Your task to perform on an android device: open app "Facebook" (install if not already installed) and go to login screen Image 0: 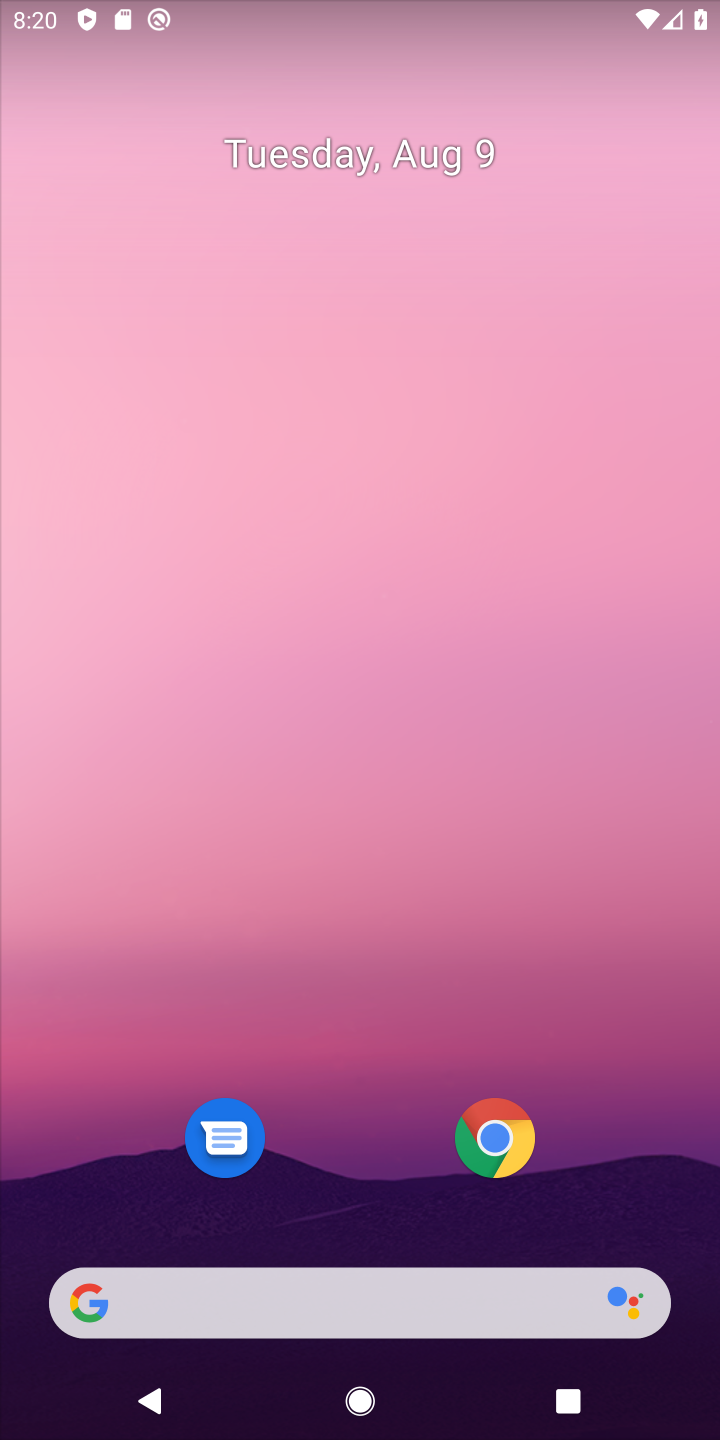
Step 0: drag from (371, 1128) to (455, 232)
Your task to perform on an android device: open app "Facebook" (install if not already installed) and go to login screen Image 1: 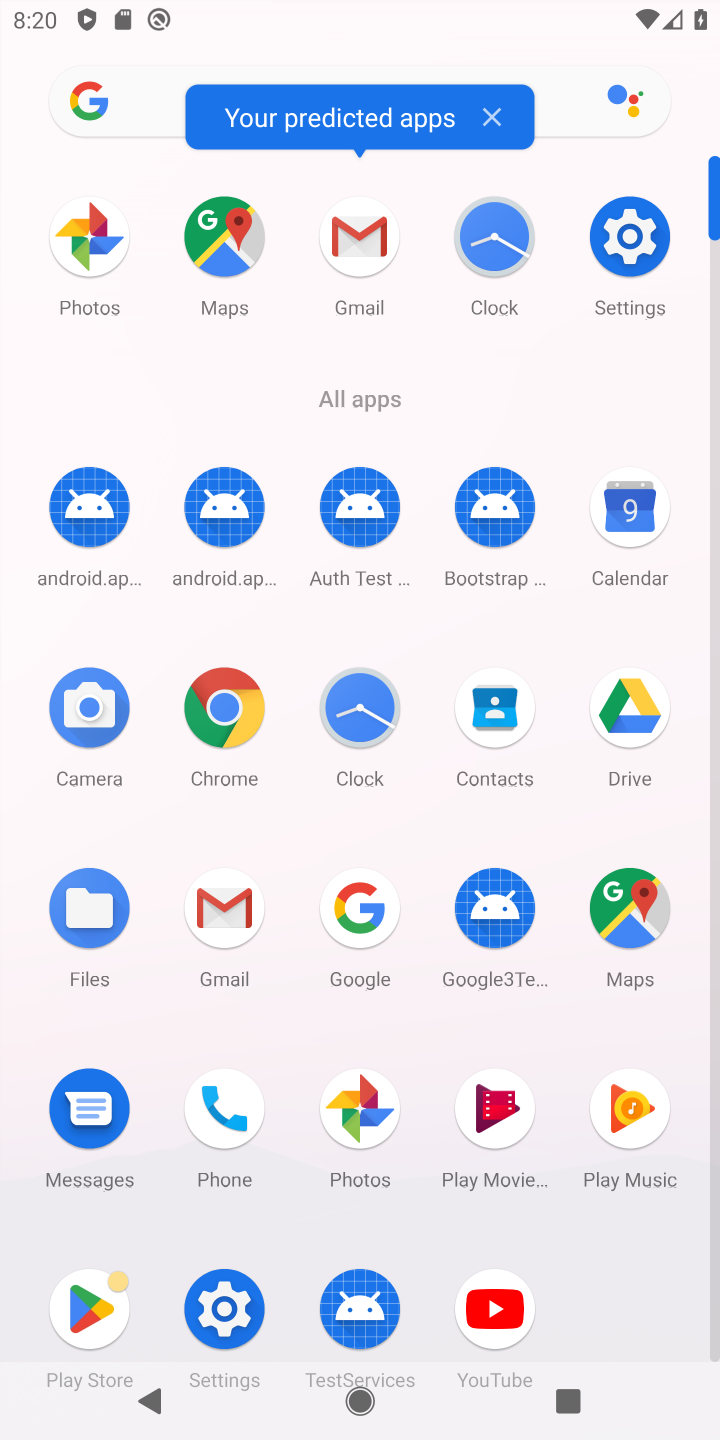
Step 1: click (110, 1294)
Your task to perform on an android device: open app "Facebook" (install if not already installed) and go to login screen Image 2: 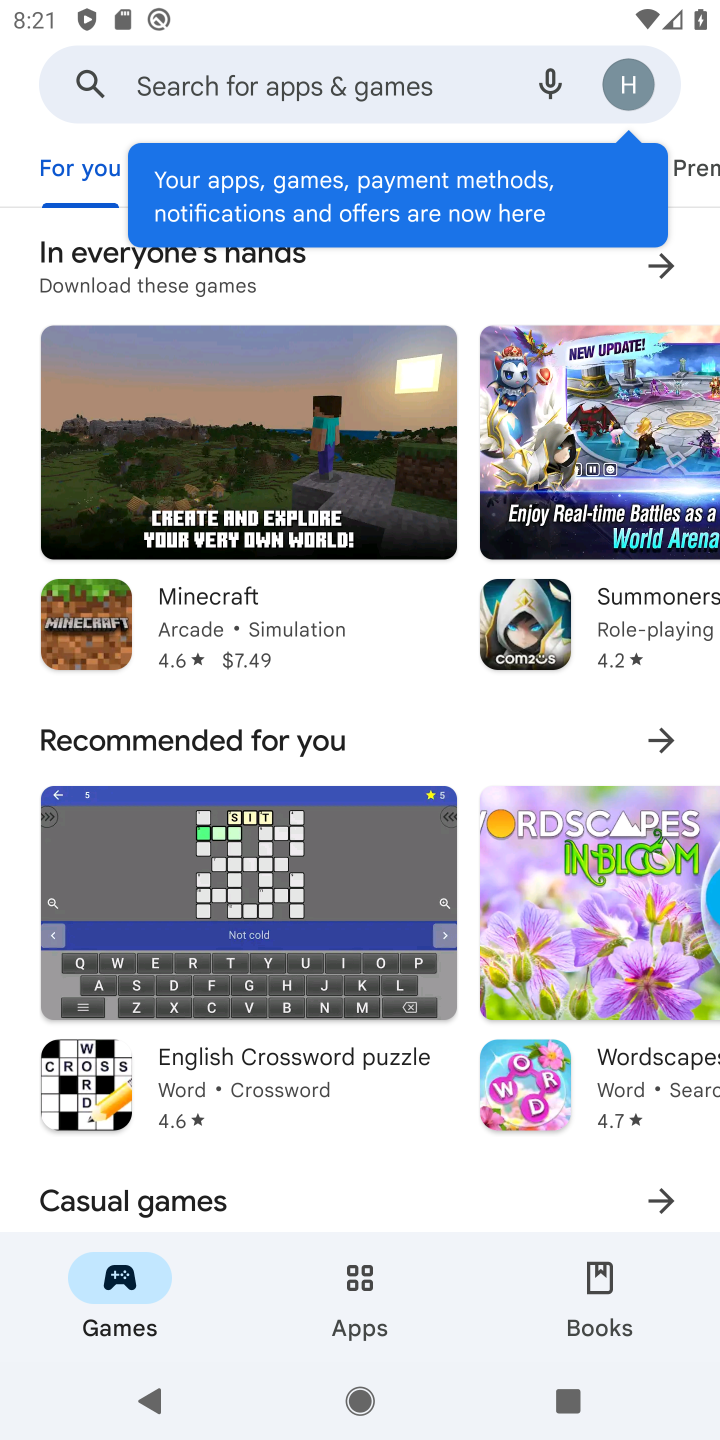
Step 2: click (336, 64)
Your task to perform on an android device: open app "Facebook" (install if not already installed) and go to login screen Image 3: 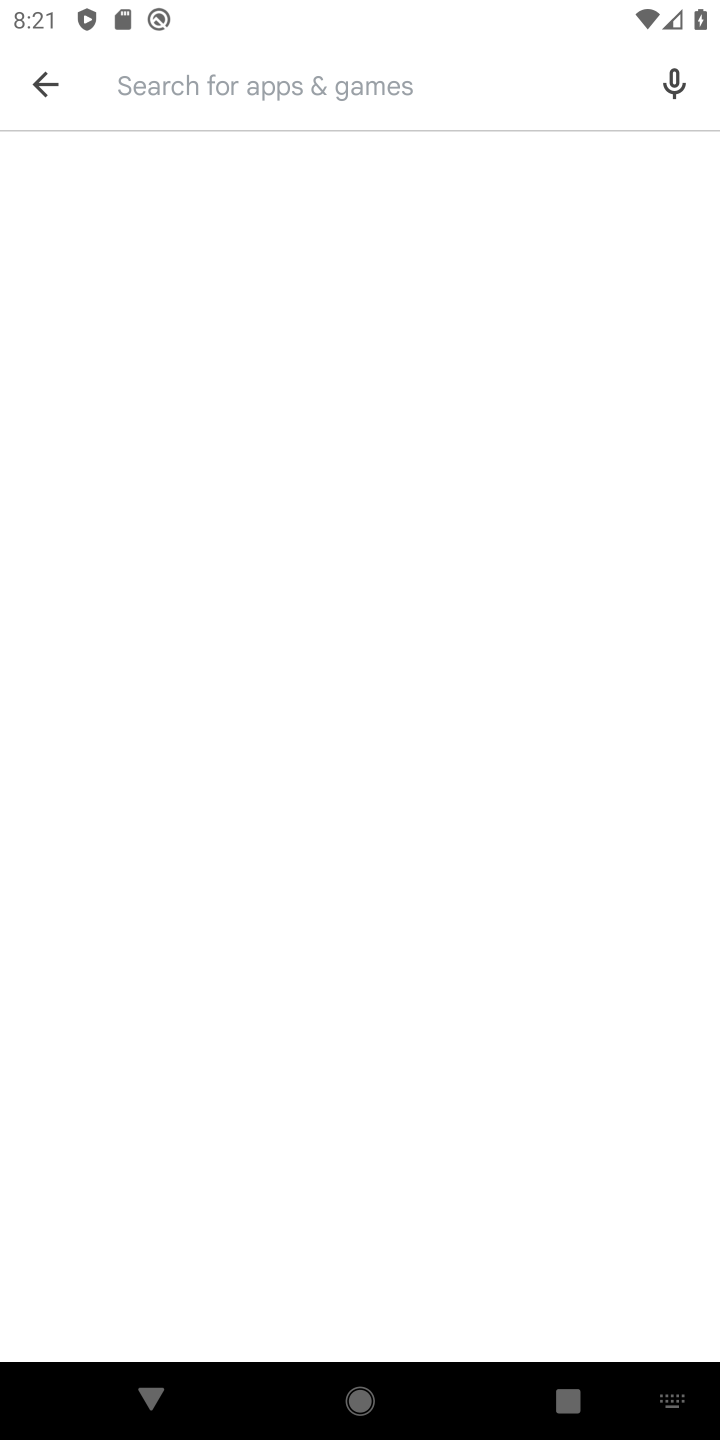
Step 3: type "Facebook"
Your task to perform on an android device: open app "Facebook" (install if not already installed) and go to login screen Image 4: 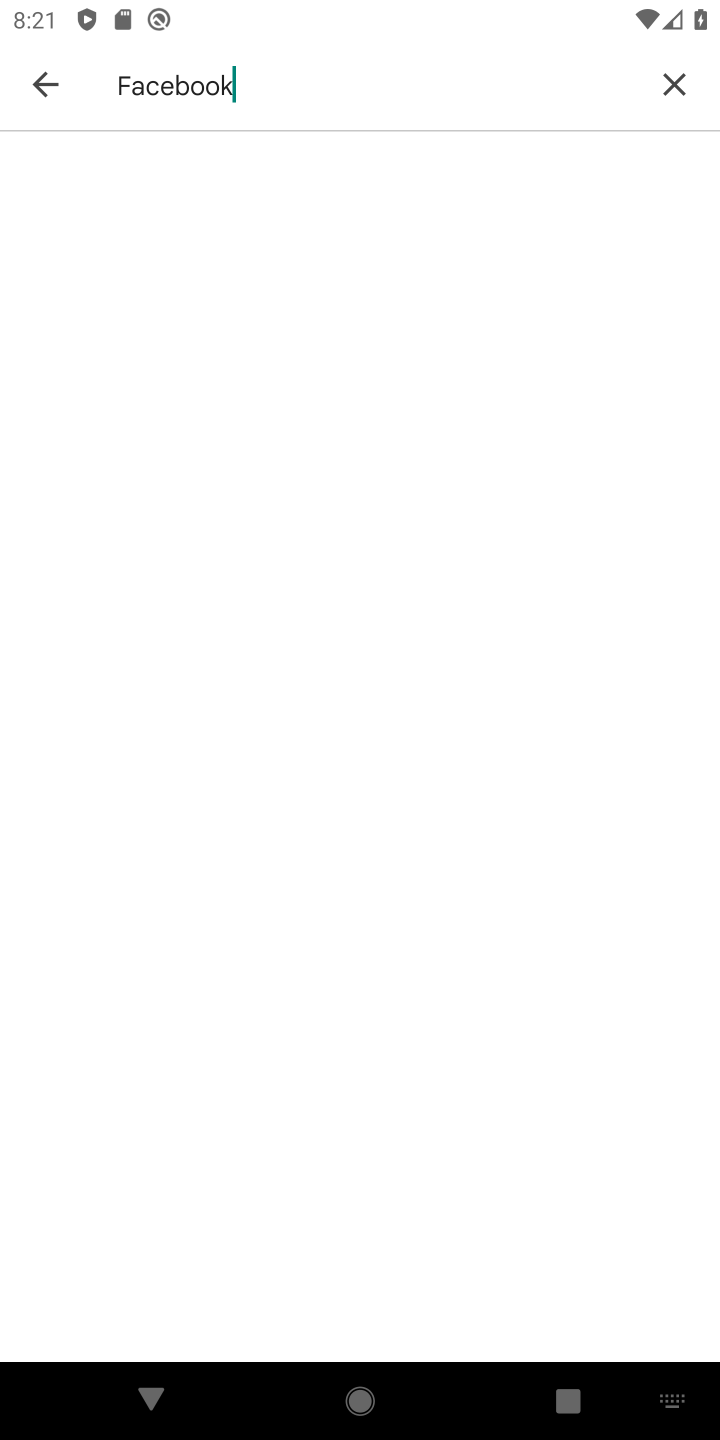
Step 4: type ""
Your task to perform on an android device: open app "Facebook" (install if not already installed) and go to login screen Image 5: 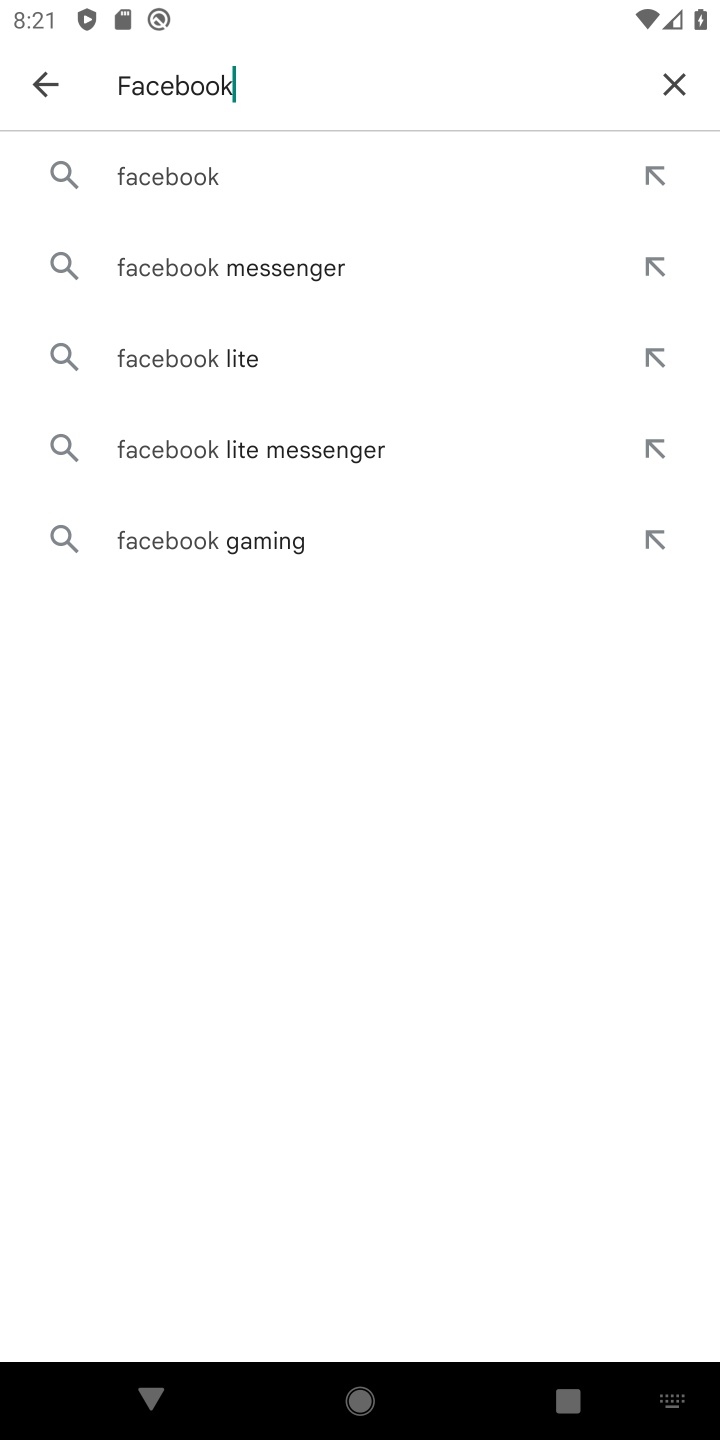
Step 5: click (184, 165)
Your task to perform on an android device: open app "Facebook" (install if not already installed) and go to login screen Image 6: 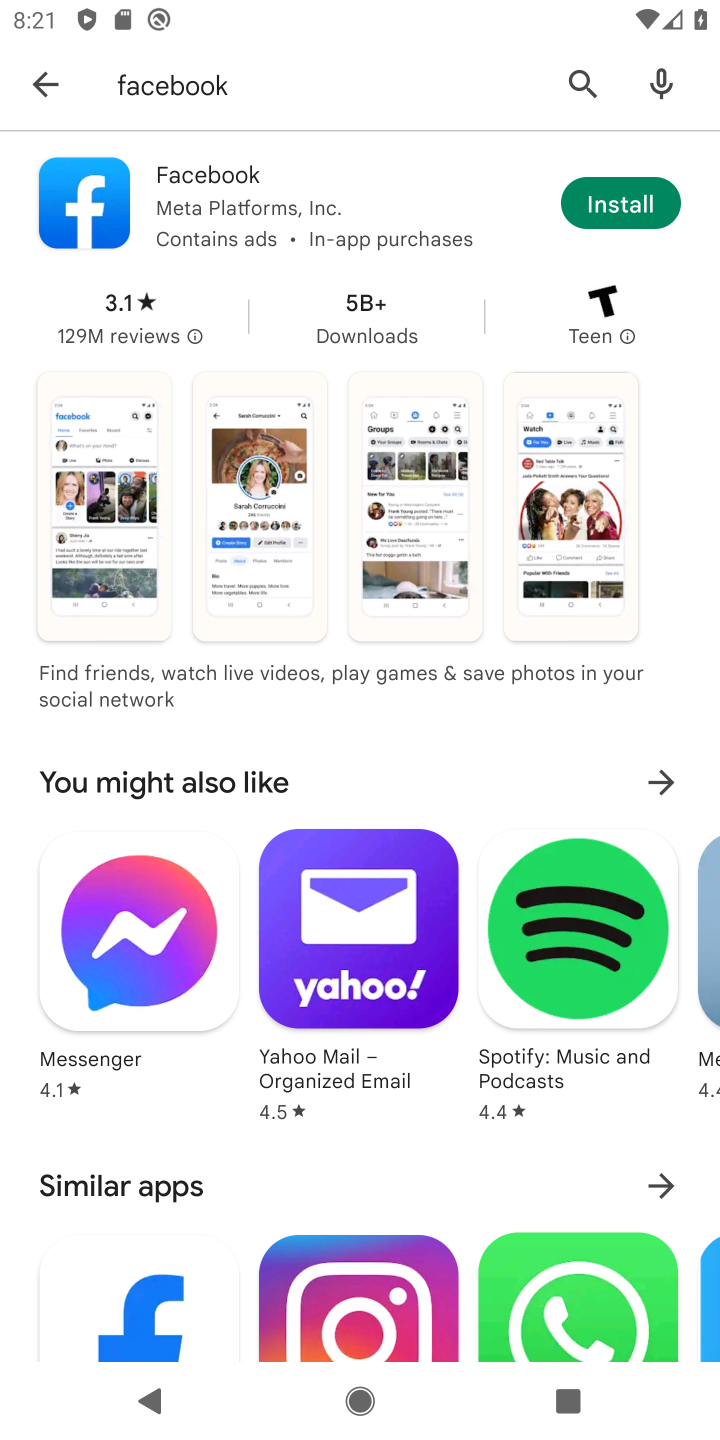
Step 6: click (628, 211)
Your task to perform on an android device: open app "Facebook" (install if not already installed) and go to login screen Image 7: 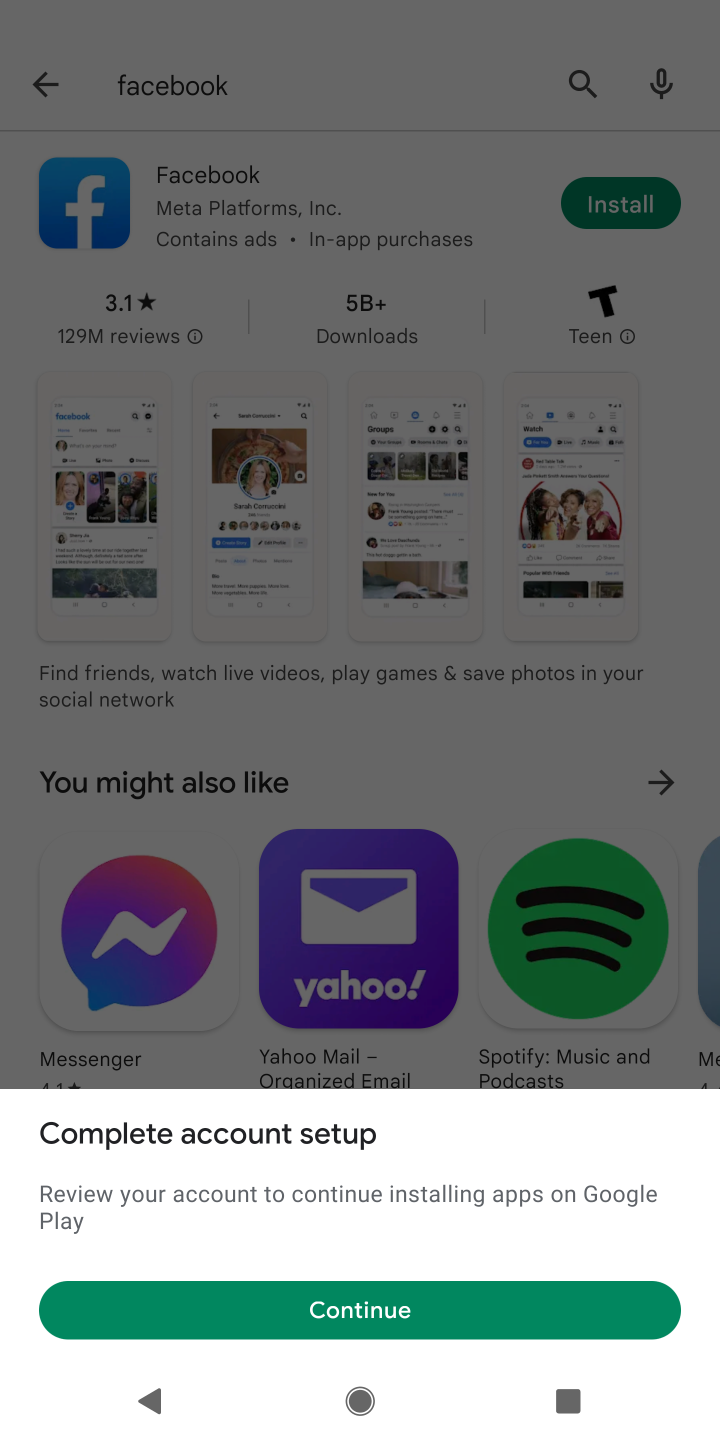
Step 7: click (355, 1306)
Your task to perform on an android device: open app "Facebook" (install if not already installed) and go to login screen Image 8: 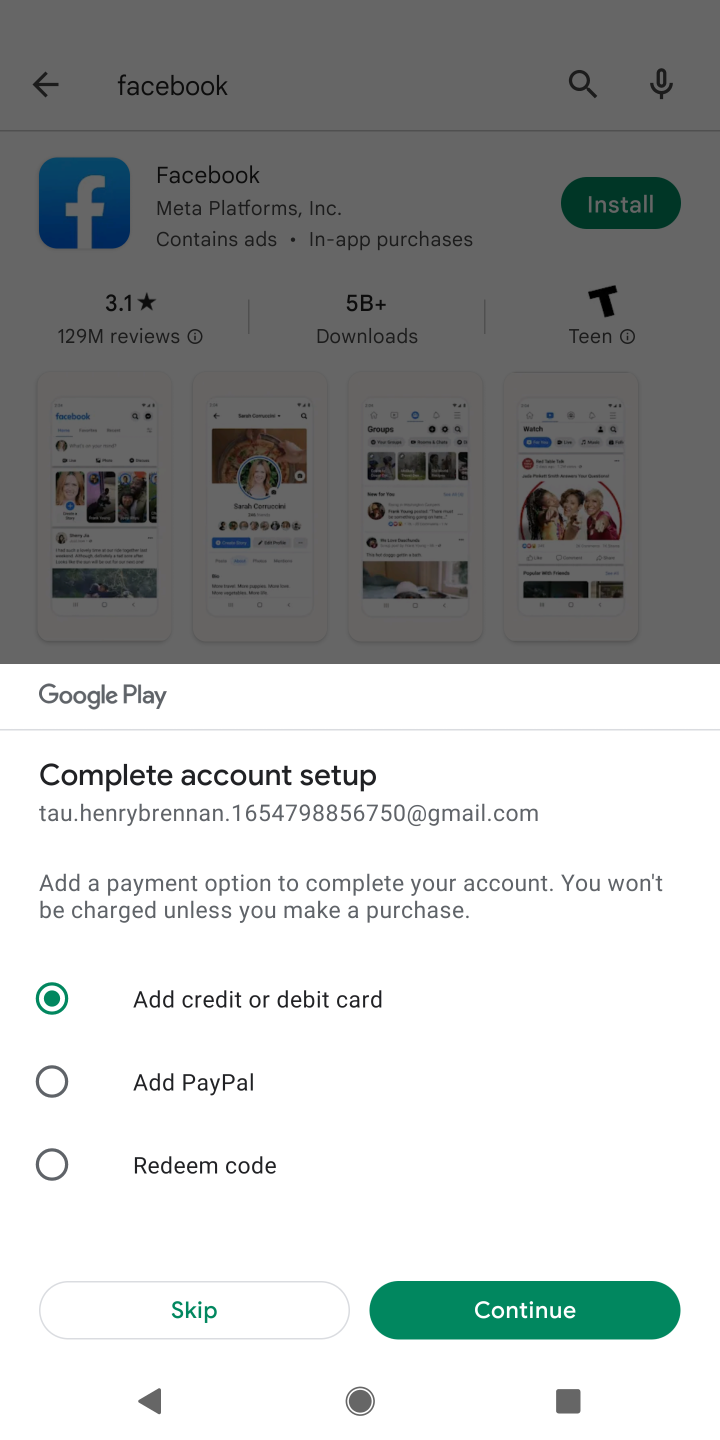
Step 8: click (148, 1320)
Your task to perform on an android device: open app "Facebook" (install if not already installed) and go to login screen Image 9: 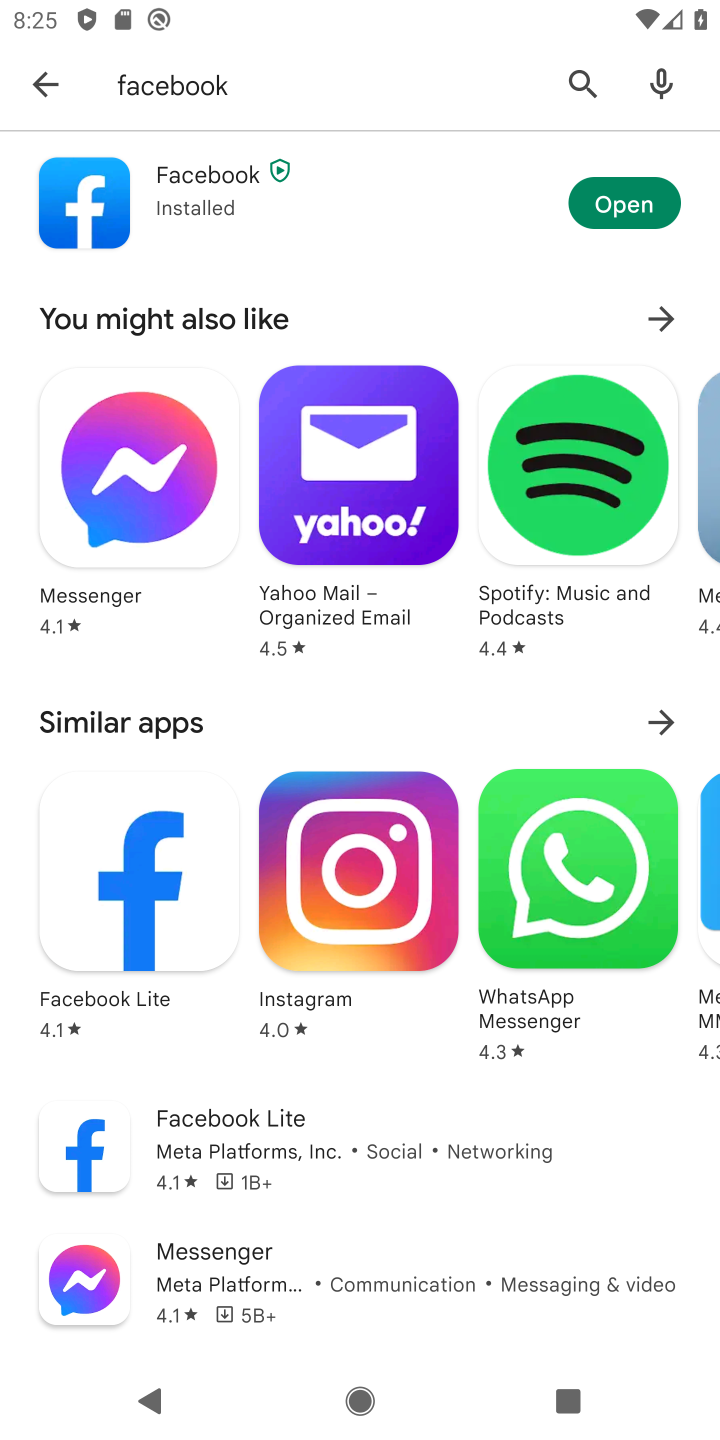
Step 9: click (622, 208)
Your task to perform on an android device: open app "Facebook" (install if not already installed) and go to login screen Image 10: 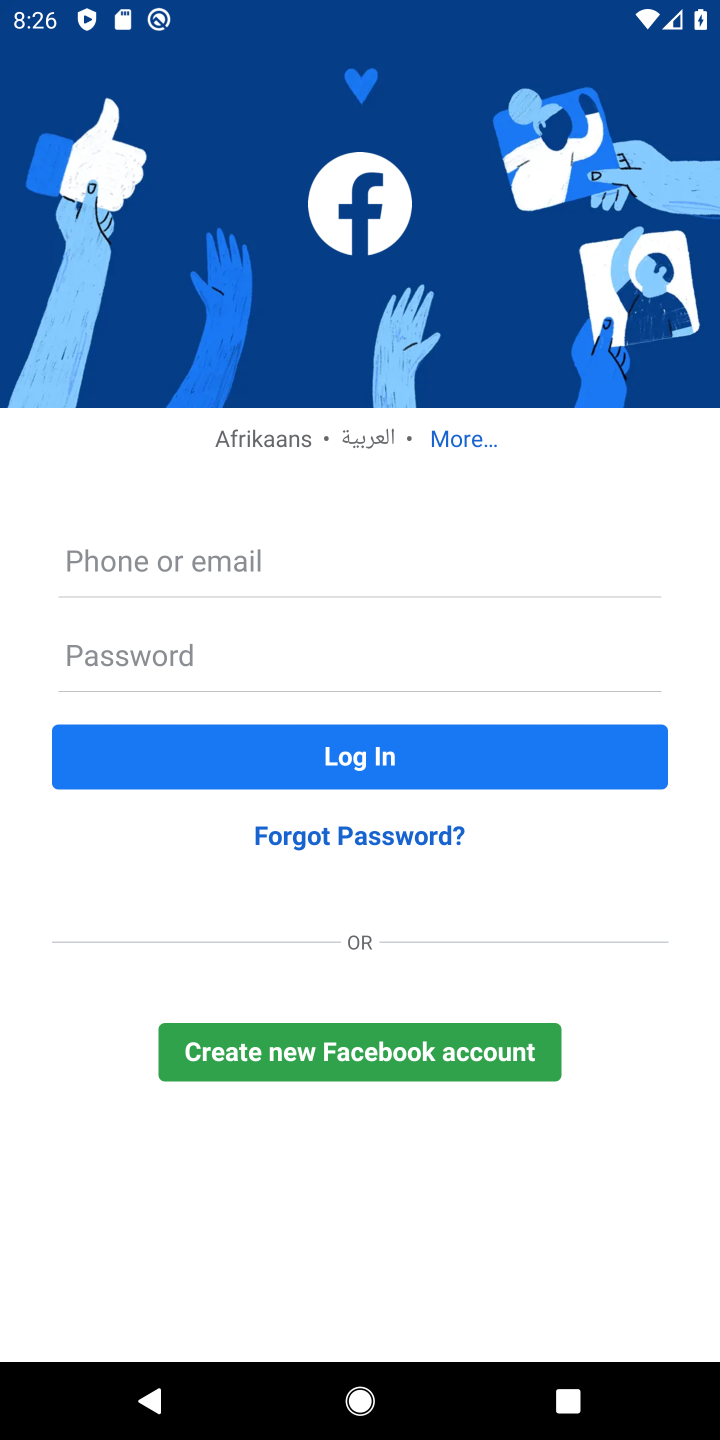
Step 10: task complete